Your task to perform on an android device: Search for sushi restaurants on Maps Image 0: 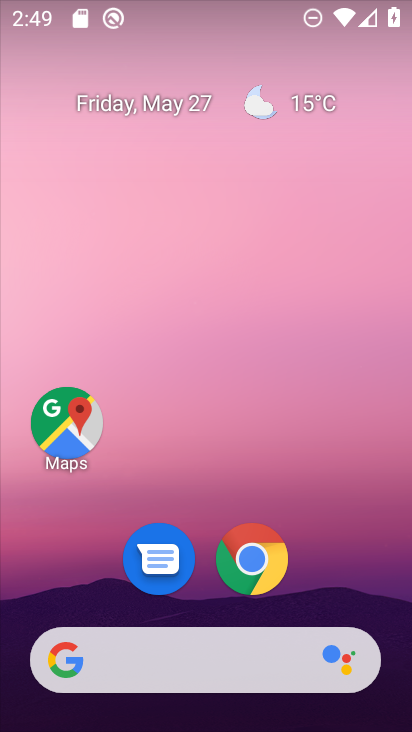
Step 0: drag from (290, 598) to (224, 7)
Your task to perform on an android device: Search for sushi restaurants on Maps Image 1: 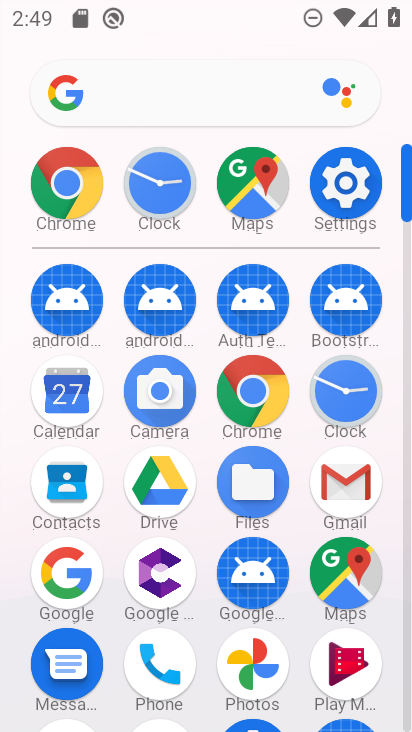
Step 1: click (352, 583)
Your task to perform on an android device: Search for sushi restaurants on Maps Image 2: 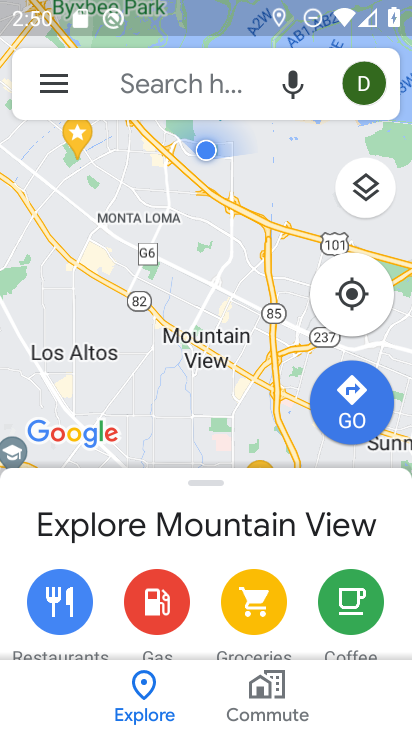
Step 2: click (174, 81)
Your task to perform on an android device: Search for sushi restaurants on Maps Image 3: 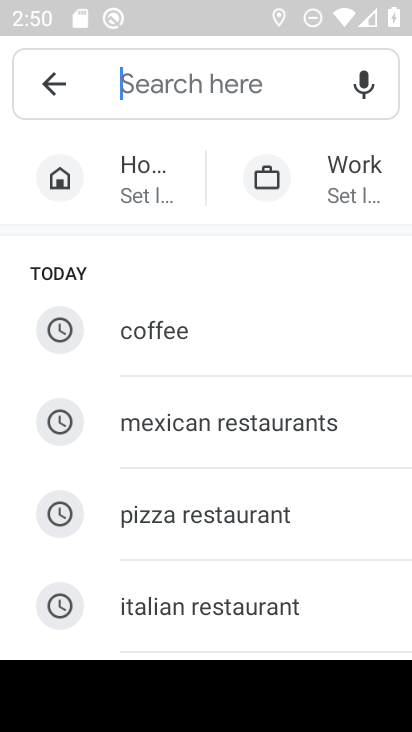
Step 3: drag from (187, 590) to (198, 248)
Your task to perform on an android device: Search for sushi restaurants on Maps Image 4: 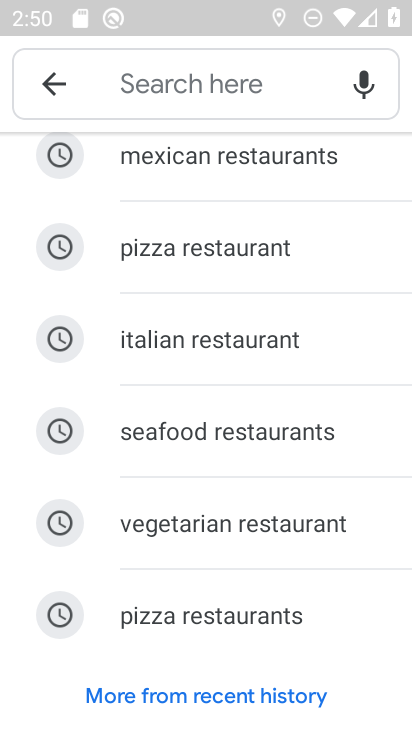
Step 4: drag from (190, 213) to (240, 658)
Your task to perform on an android device: Search for sushi restaurants on Maps Image 5: 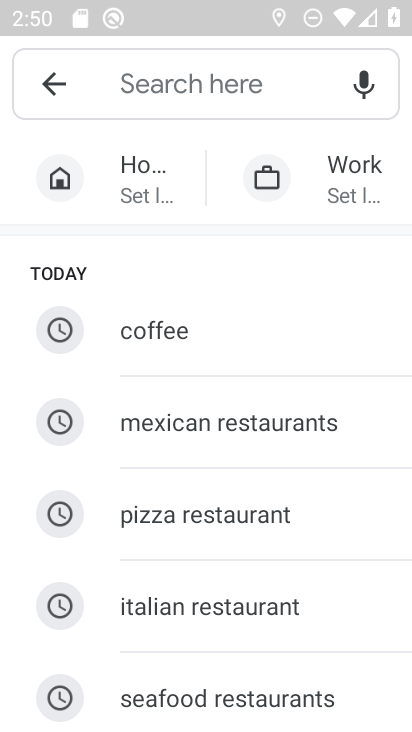
Step 5: click (197, 92)
Your task to perform on an android device: Search for sushi restaurants on Maps Image 6: 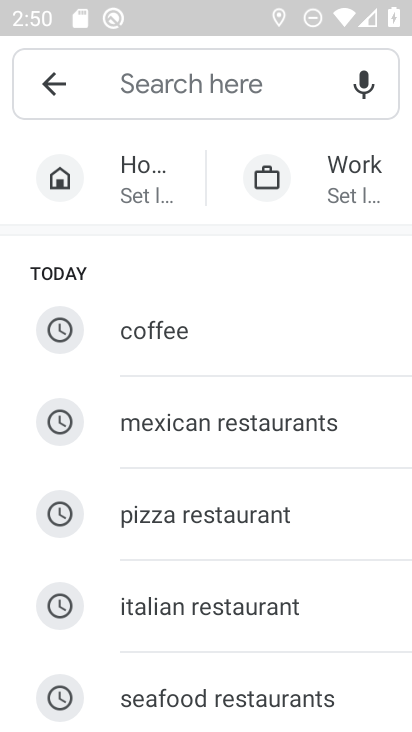
Step 6: click (197, 92)
Your task to perform on an android device: Search for sushi restaurants on Maps Image 7: 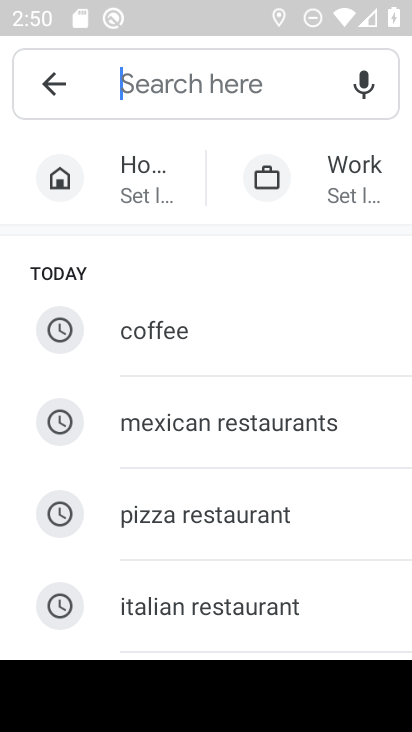
Step 7: type "sushi restaurant"
Your task to perform on an android device: Search for sushi restaurants on Maps Image 8: 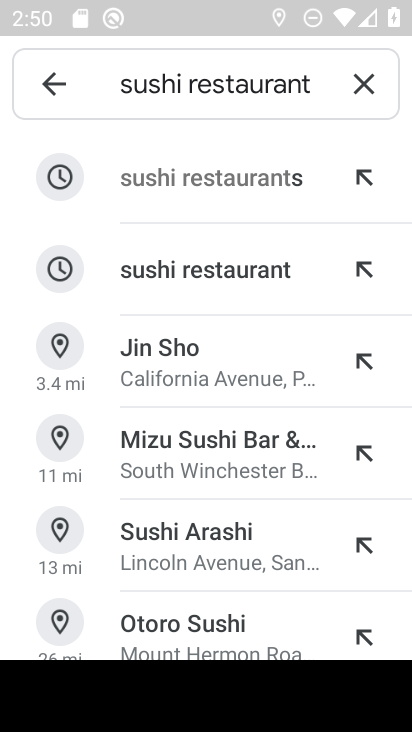
Step 8: click (293, 284)
Your task to perform on an android device: Search for sushi restaurants on Maps Image 9: 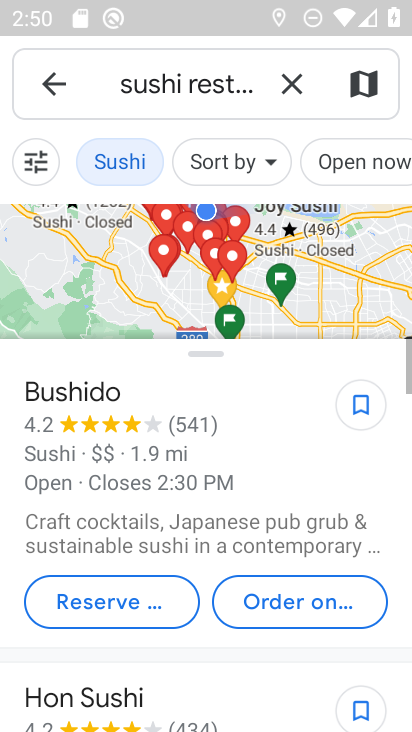
Step 9: task complete